Your task to perform on an android device: Search for "dell xps" on newegg.com, select the first entry, and add it to the cart. Image 0: 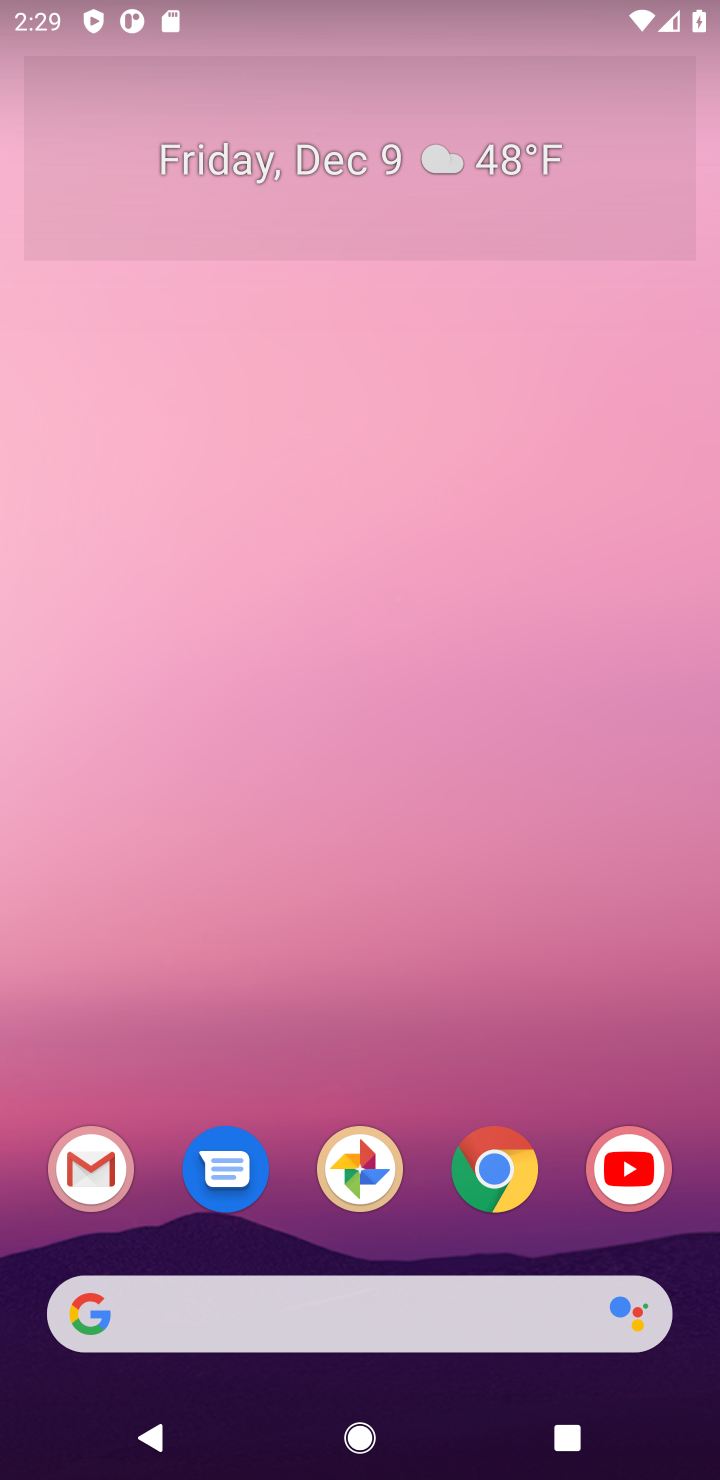
Step 0: click (503, 1176)
Your task to perform on an android device: Search for "dell xps" on newegg.com, select the first entry, and add it to the cart. Image 1: 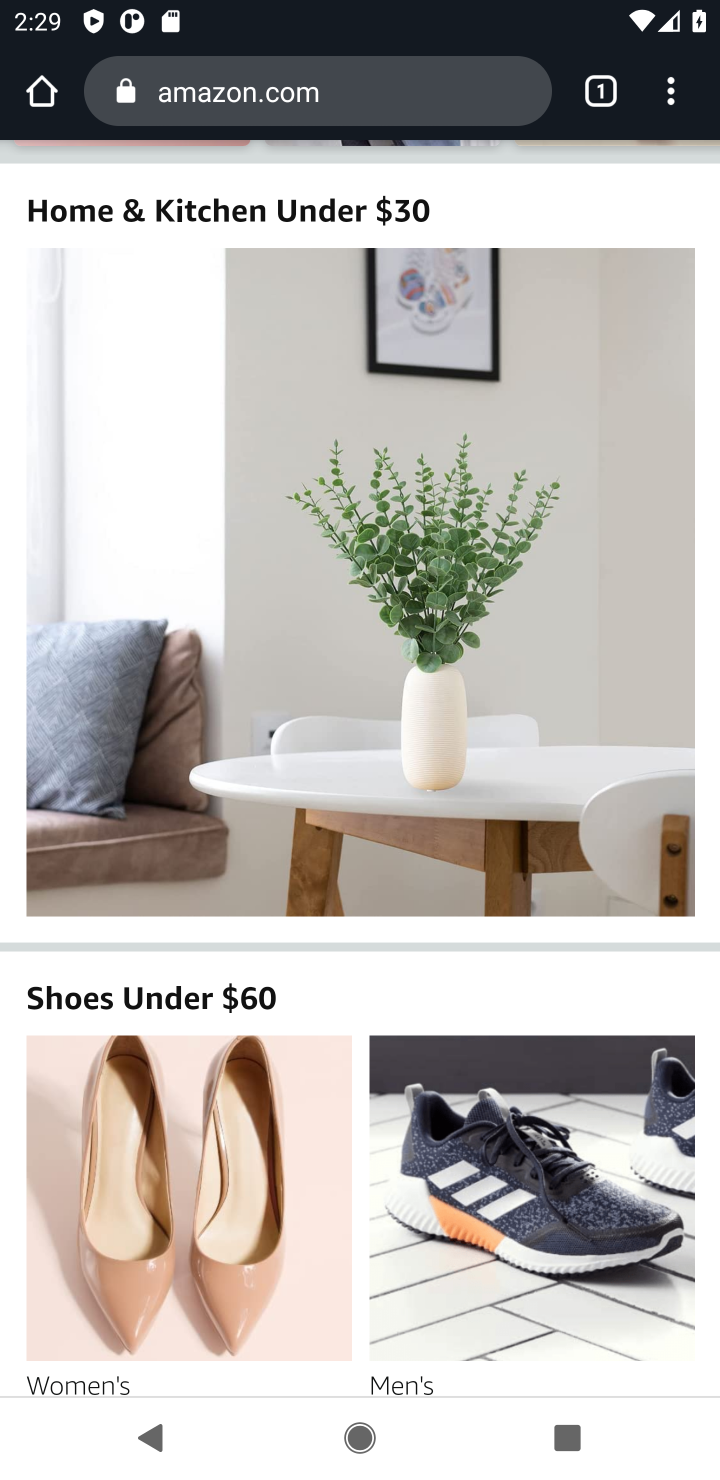
Step 1: click (300, 104)
Your task to perform on an android device: Search for "dell xps" on newegg.com, select the first entry, and add it to the cart. Image 2: 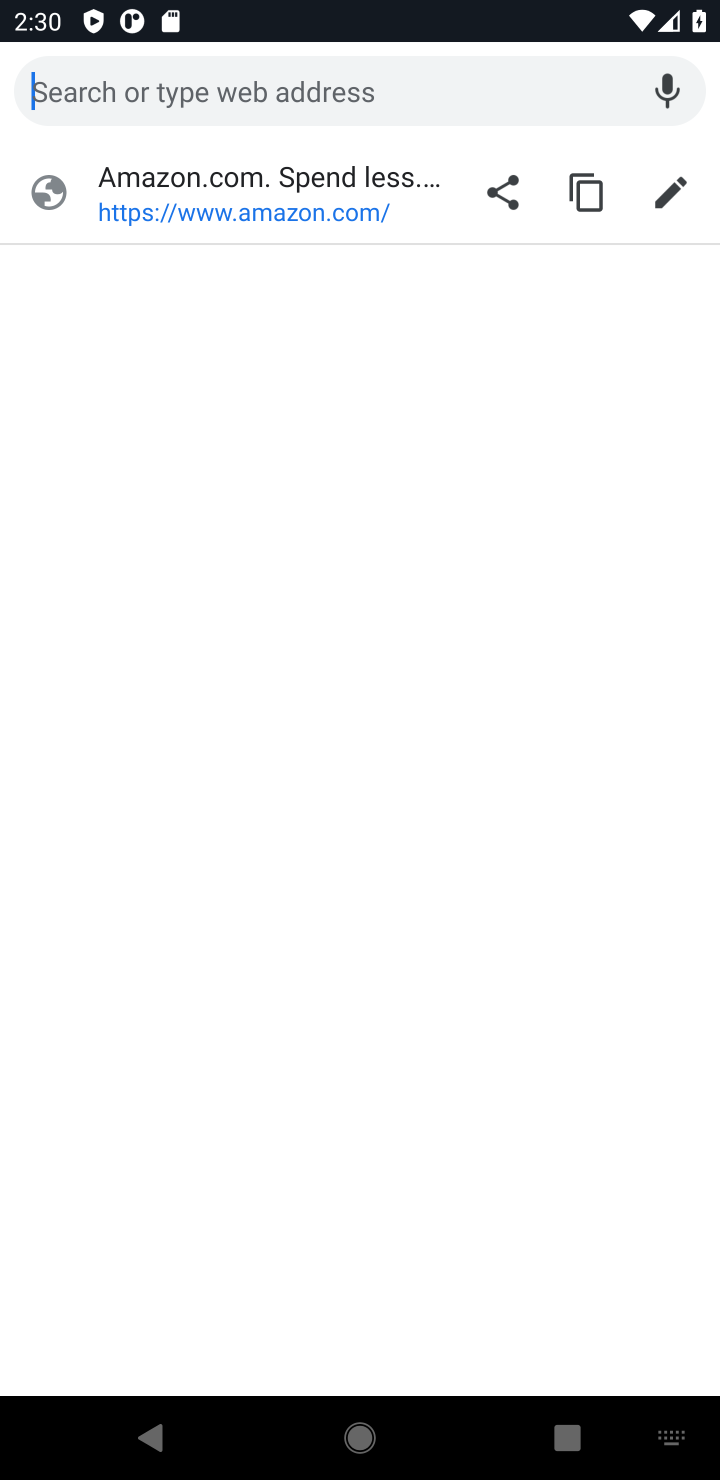
Step 2: press enter
Your task to perform on an android device: Search for "dell xps" on newegg.com, select the first entry, and add it to the cart. Image 3: 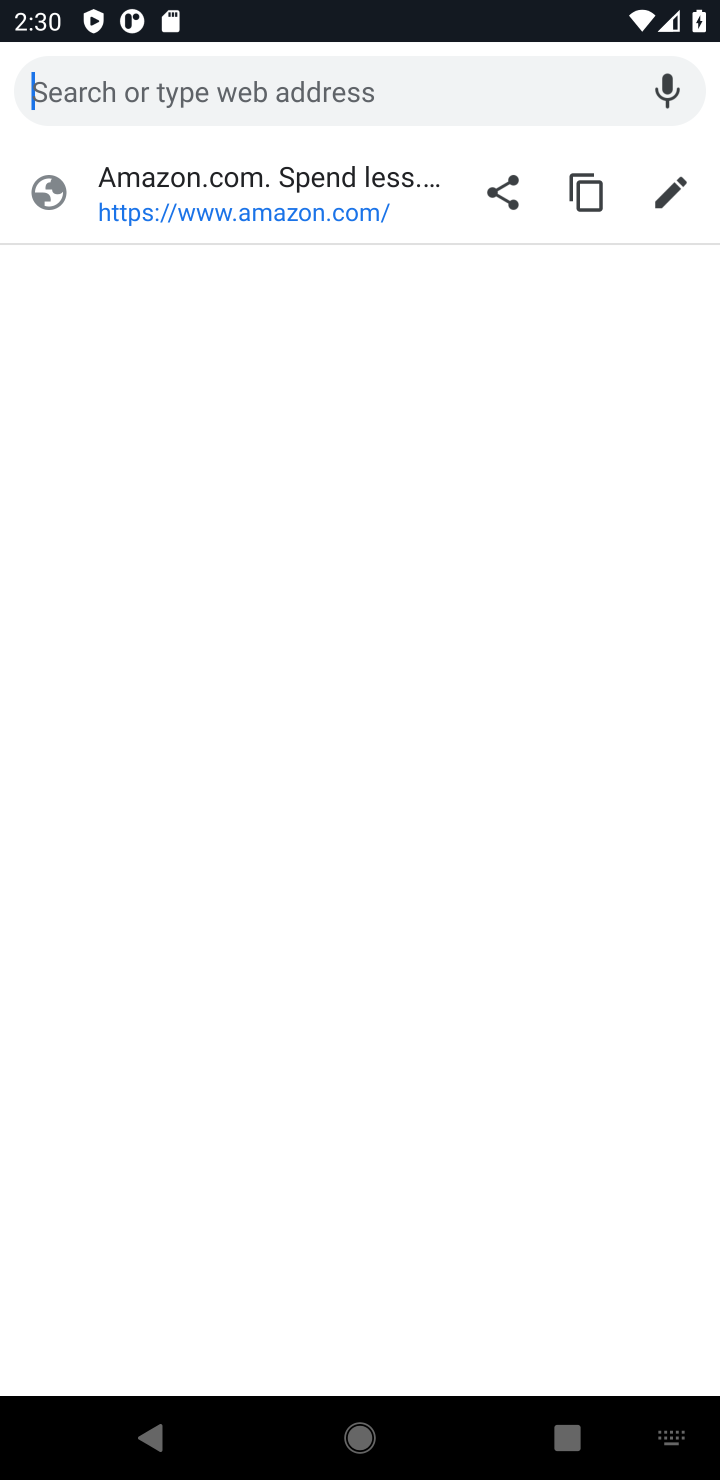
Step 3: type "newegg.com"
Your task to perform on an android device: Search for "dell xps" on newegg.com, select the first entry, and add it to the cart. Image 4: 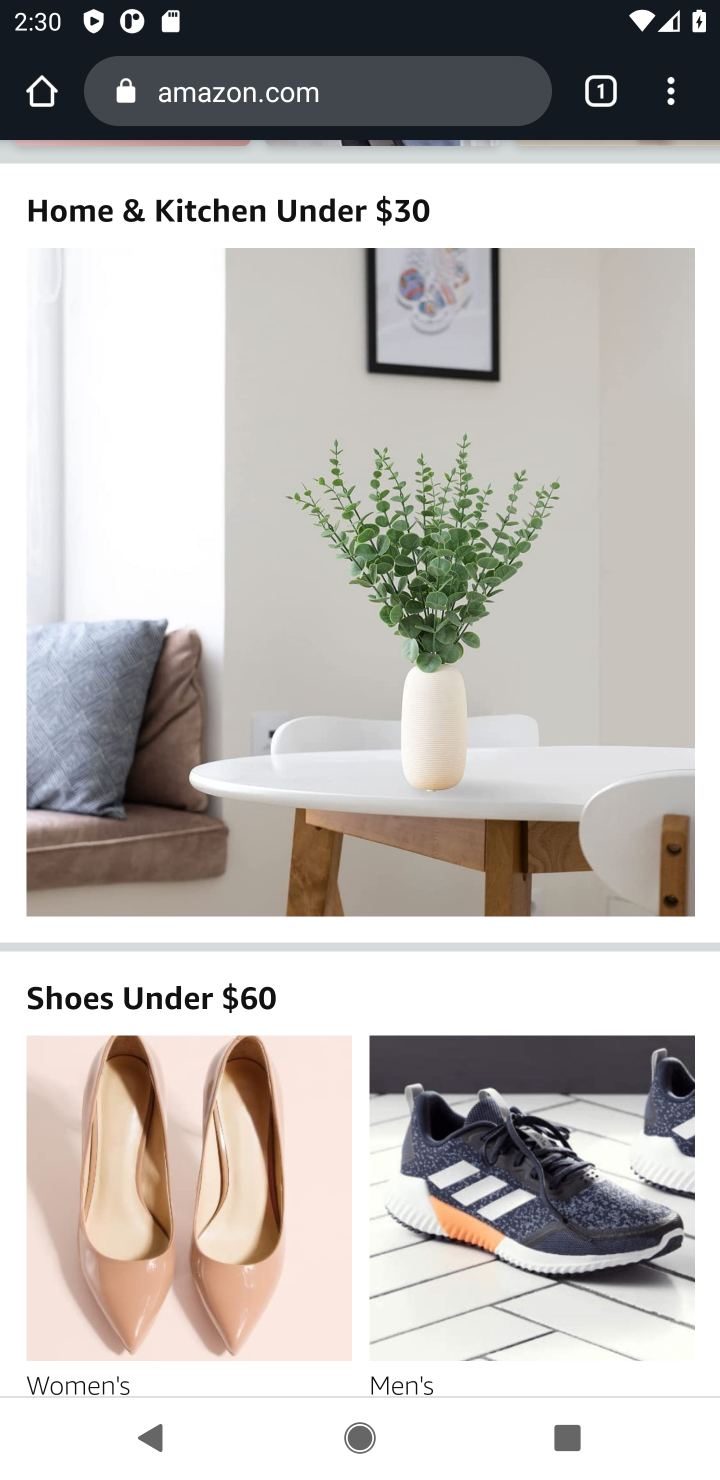
Step 4: click (421, 85)
Your task to perform on an android device: Search for "dell xps" on newegg.com, select the first entry, and add it to the cart. Image 5: 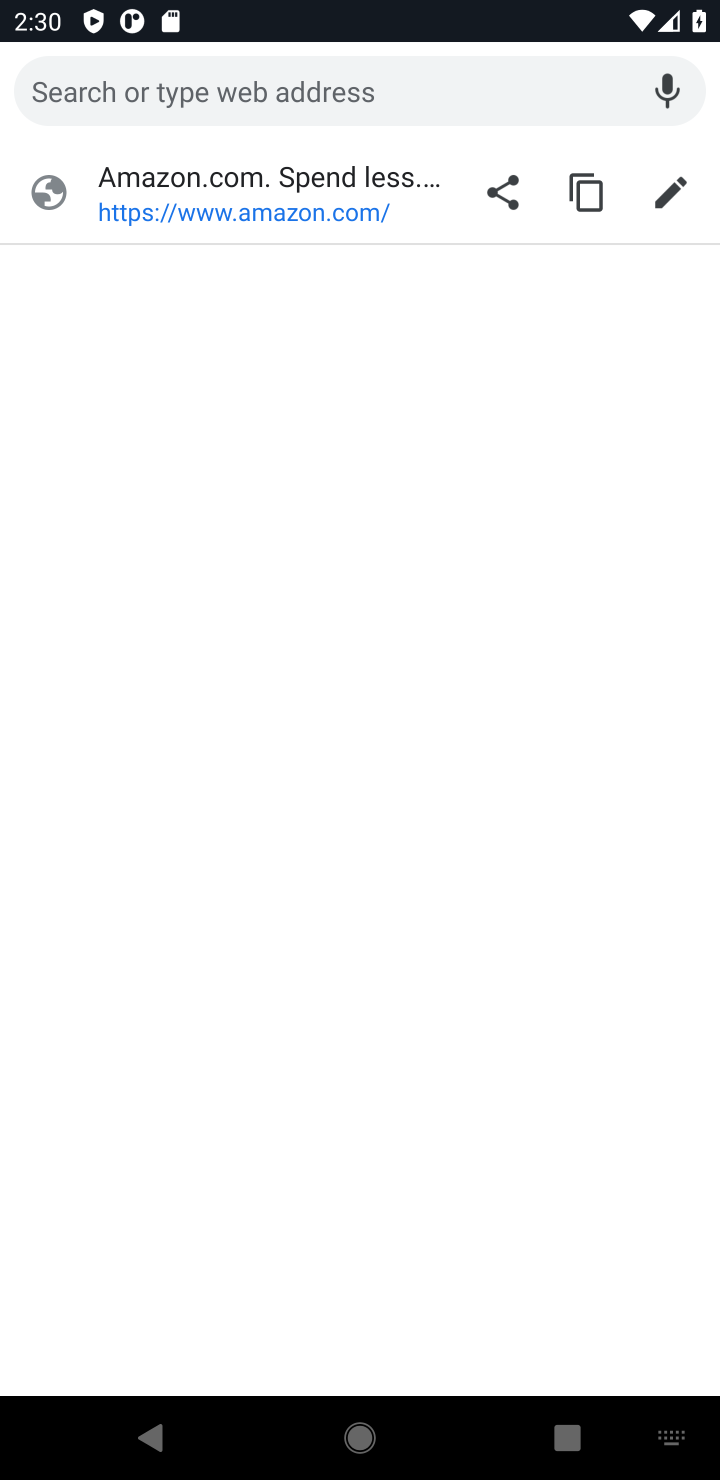
Step 5: press enter
Your task to perform on an android device: Search for "dell xps" on newegg.com, select the first entry, and add it to the cart. Image 6: 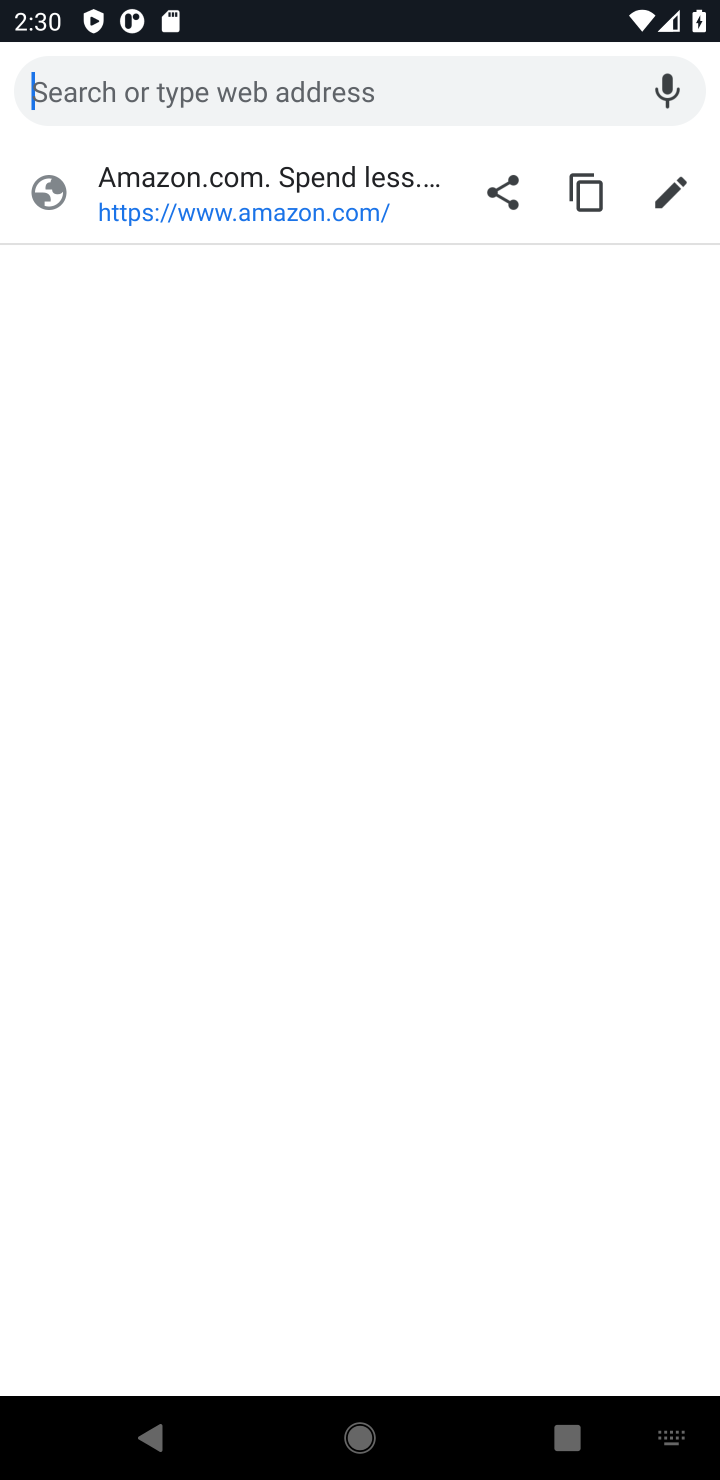
Step 6: type "newegg.com"
Your task to perform on an android device: Search for "dell xps" on newegg.com, select the first entry, and add it to the cart. Image 7: 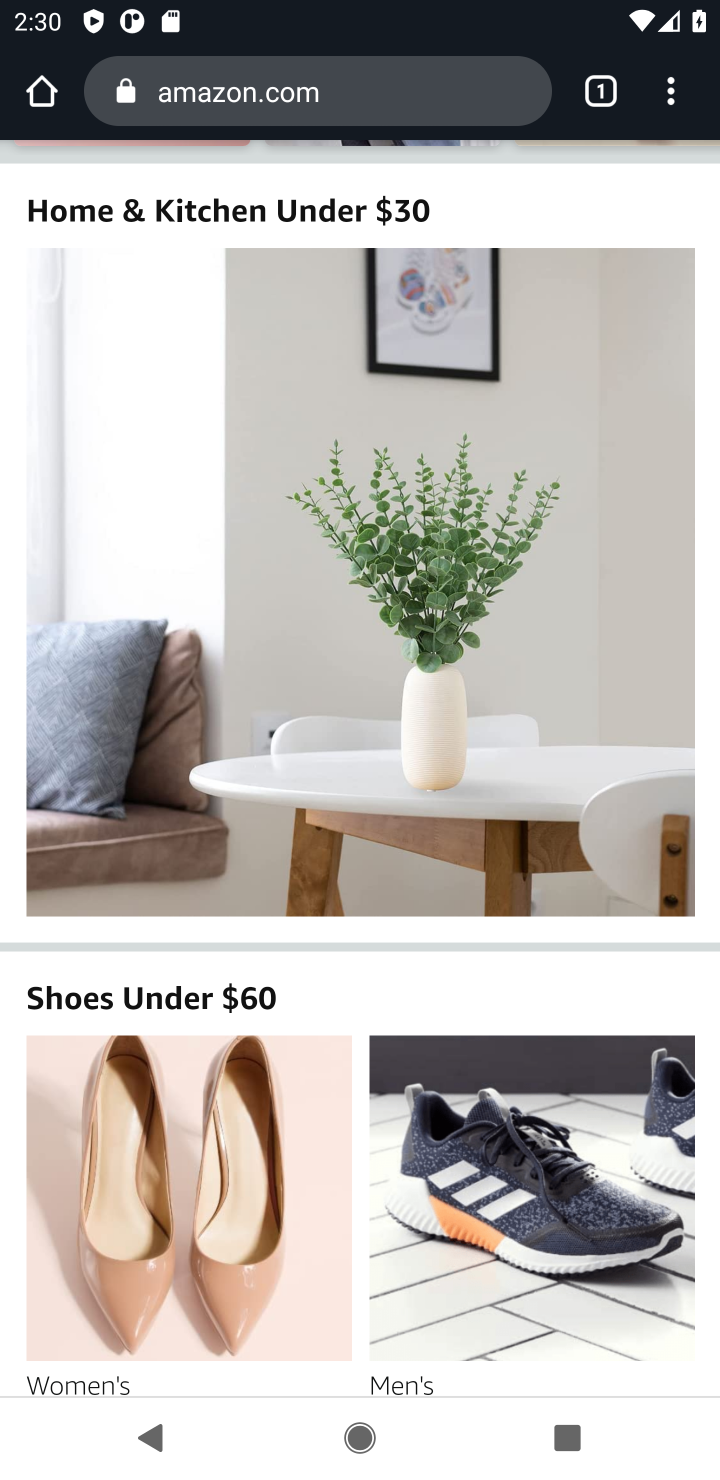
Step 7: click (44, 101)
Your task to perform on an android device: Search for "dell xps" on newegg.com, select the first entry, and add it to the cart. Image 8: 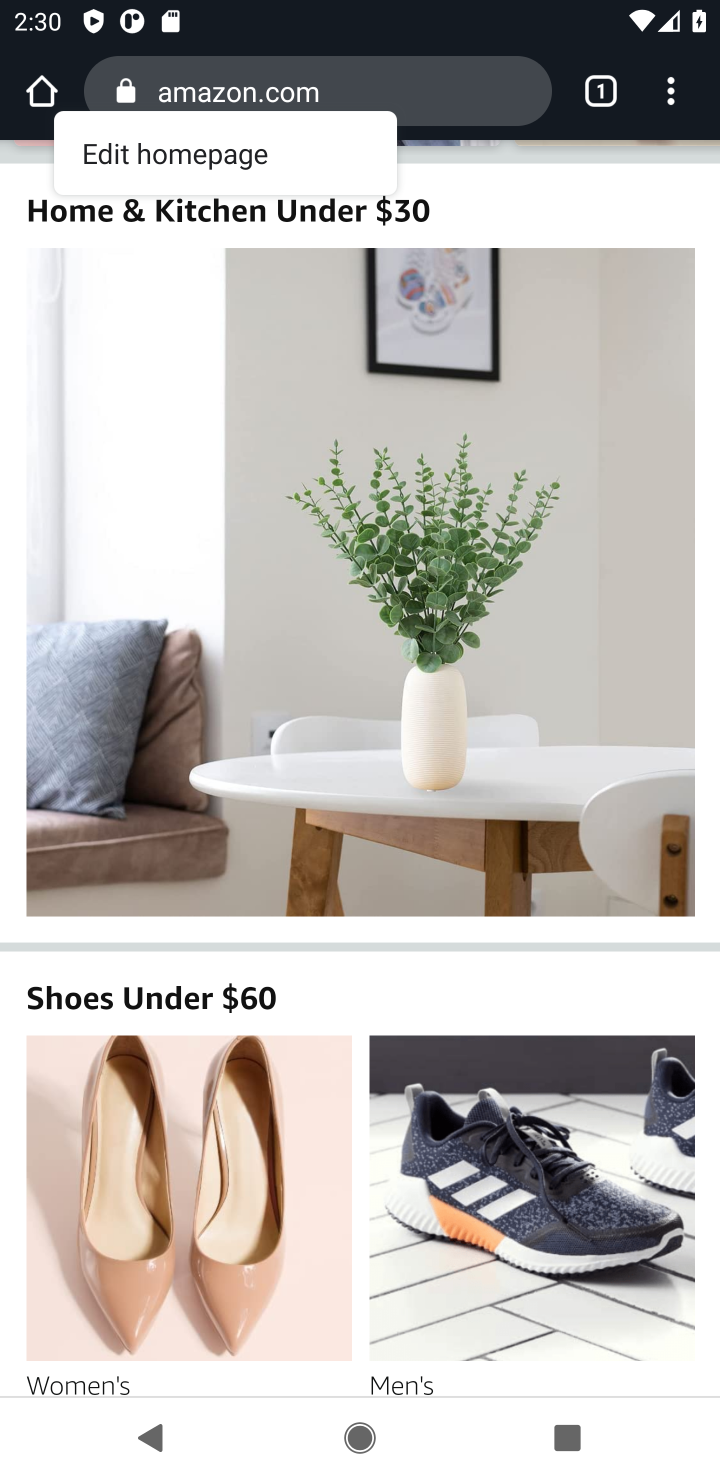
Step 8: click (46, 93)
Your task to perform on an android device: Search for "dell xps" on newegg.com, select the first entry, and add it to the cart. Image 9: 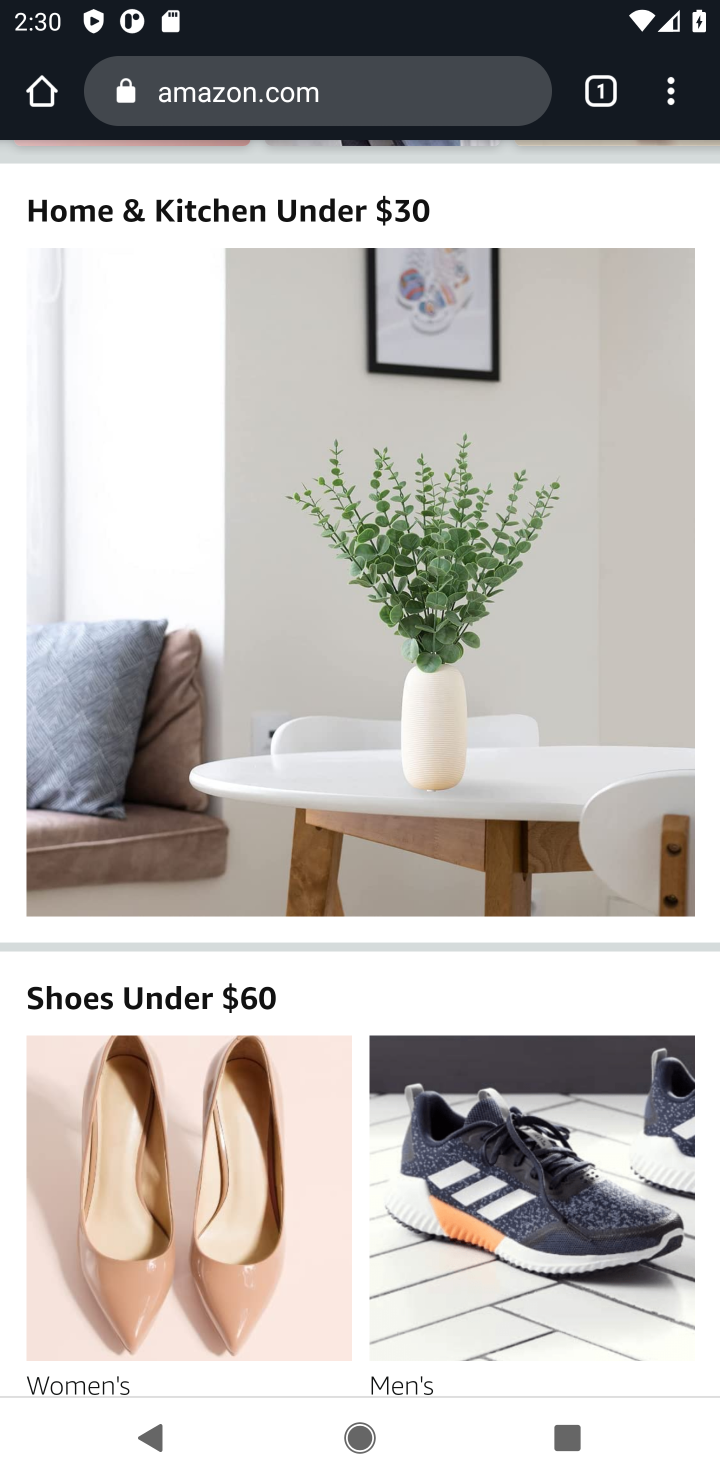
Step 9: click (46, 93)
Your task to perform on an android device: Search for "dell xps" on newegg.com, select the first entry, and add it to the cart. Image 10: 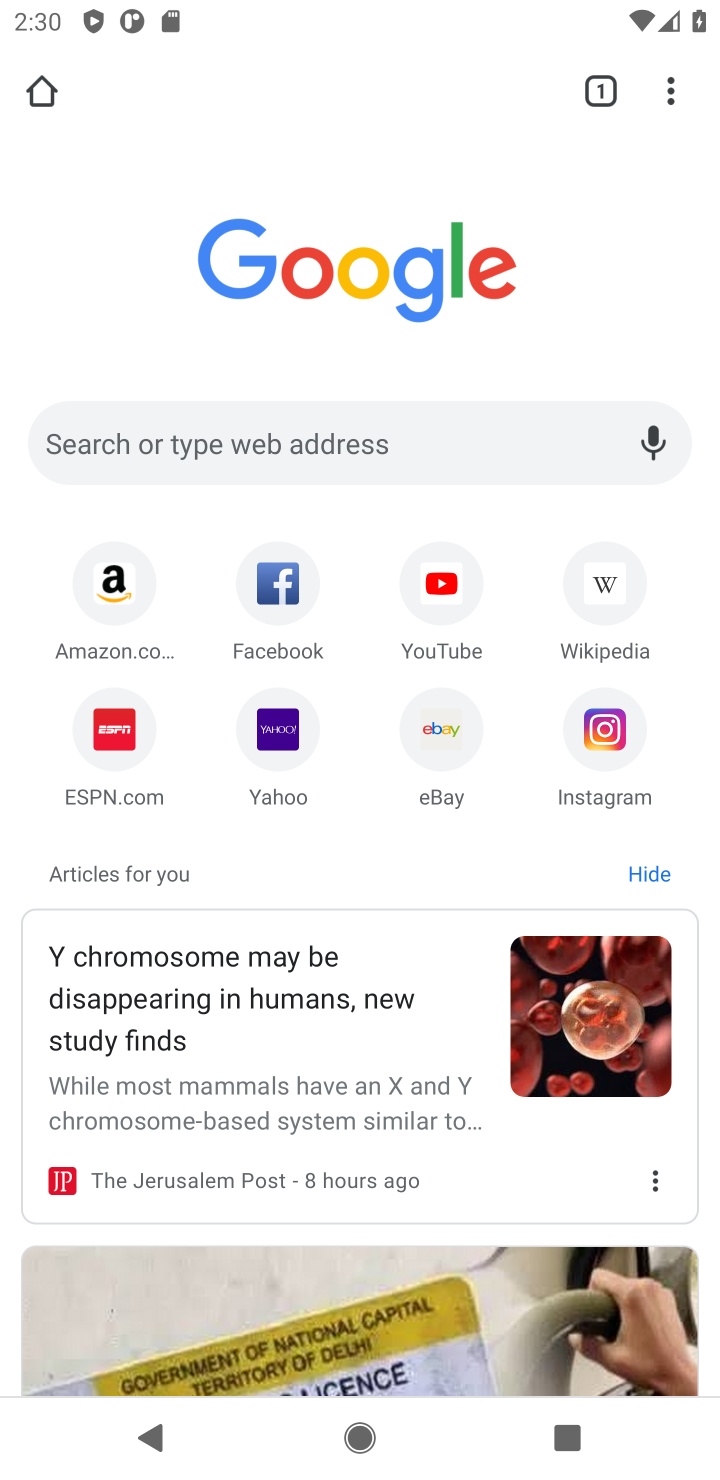
Step 10: click (411, 427)
Your task to perform on an android device: Search for "dell xps" on newegg.com, select the first entry, and add it to the cart. Image 11: 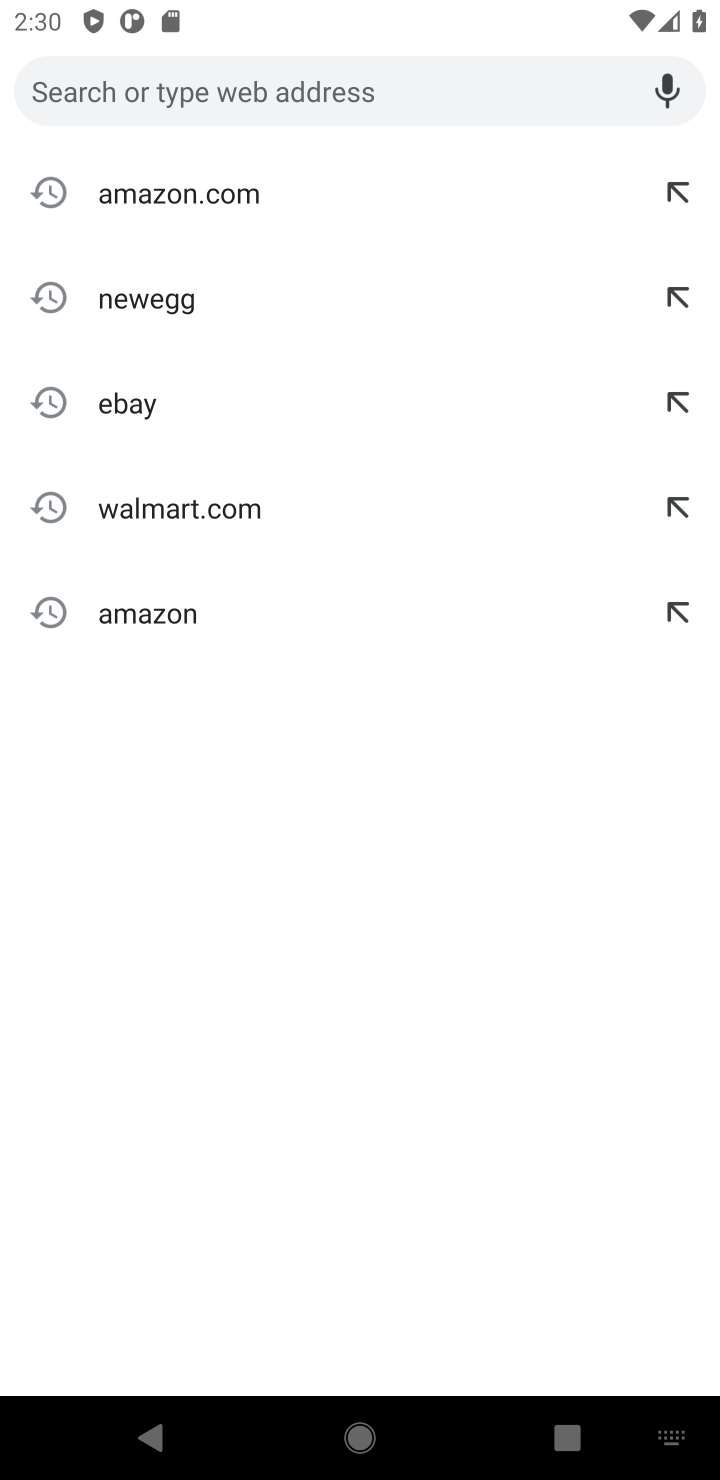
Step 11: click (139, 295)
Your task to perform on an android device: Search for "dell xps" on newegg.com, select the first entry, and add it to the cart. Image 12: 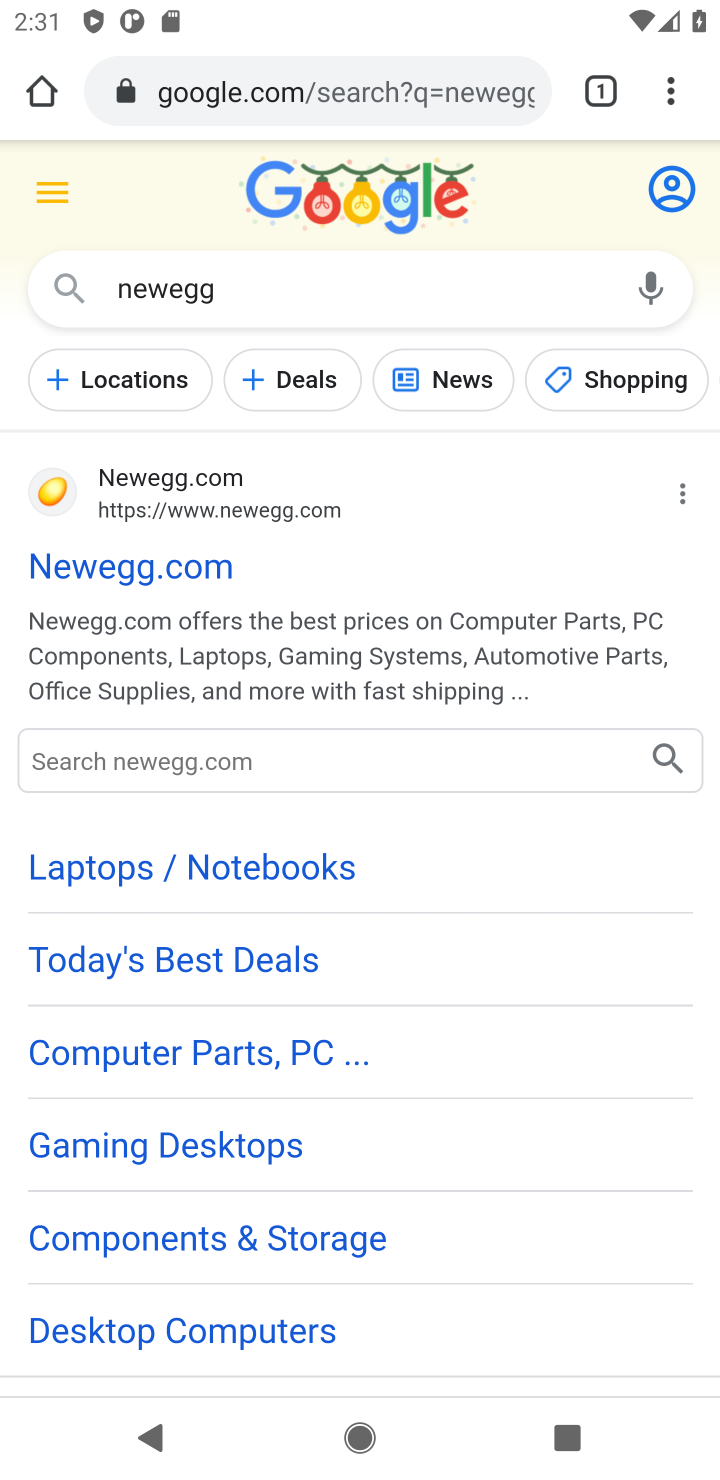
Step 12: click (179, 513)
Your task to perform on an android device: Search for "dell xps" on newegg.com, select the first entry, and add it to the cart. Image 13: 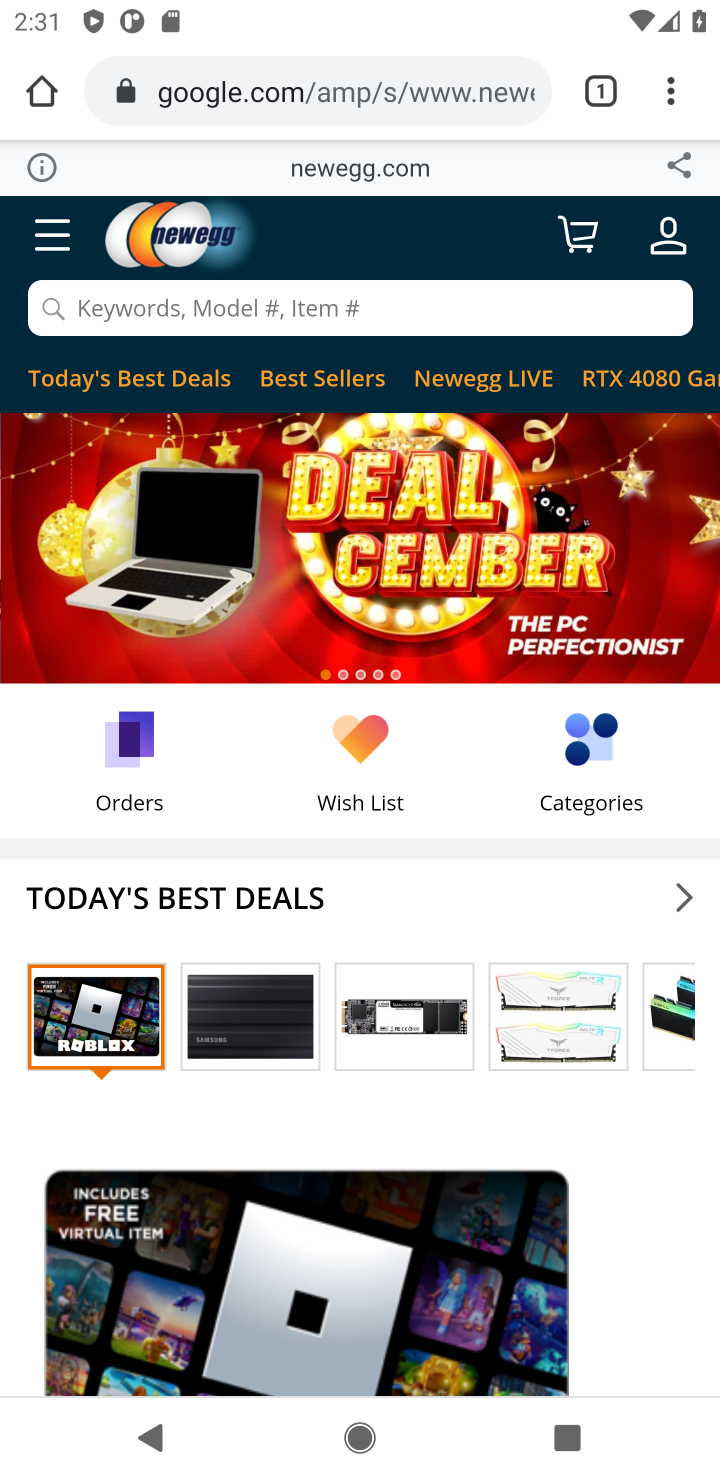
Step 13: click (571, 301)
Your task to perform on an android device: Search for "dell xps" on newegg.com, select the first entry, and add it to the cart. Image 14: 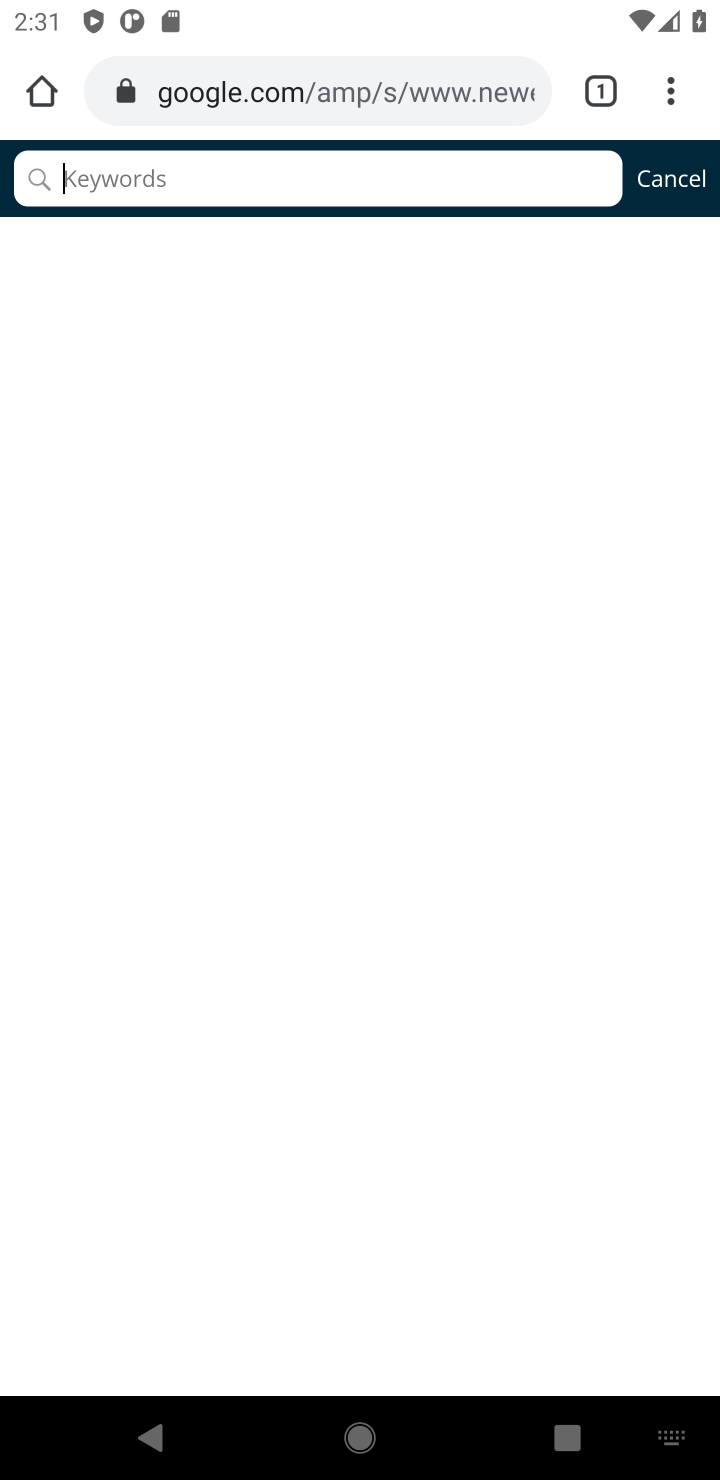
Step 14: press enter
Your task to perform on an android device: Search for "dell xps" on newegg.com, select the first entry, and add it to the cart. Image 15: 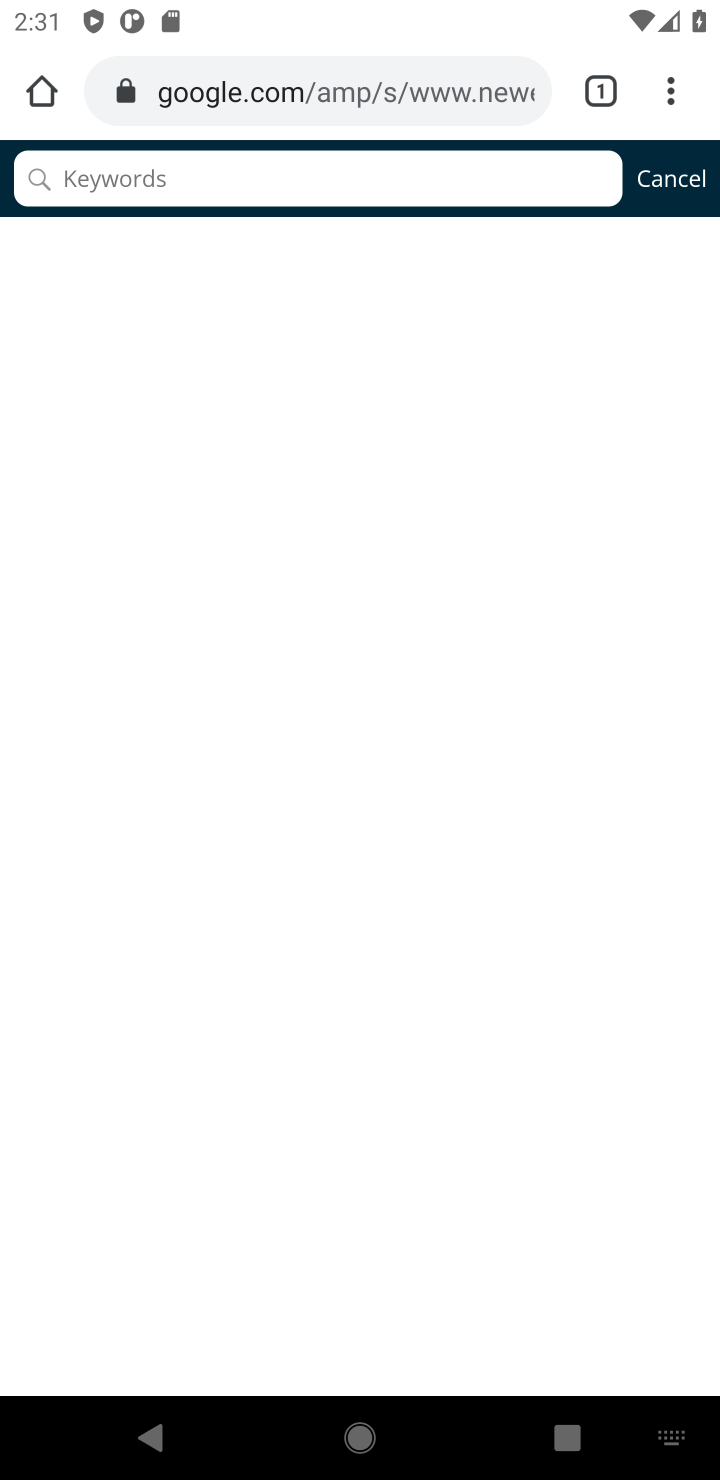
Step 15: type "dell xps"
Your task to perform on an android device: Search for "dell xps" on newegg.com, select the first entry, and add it to the cart. Image 16: 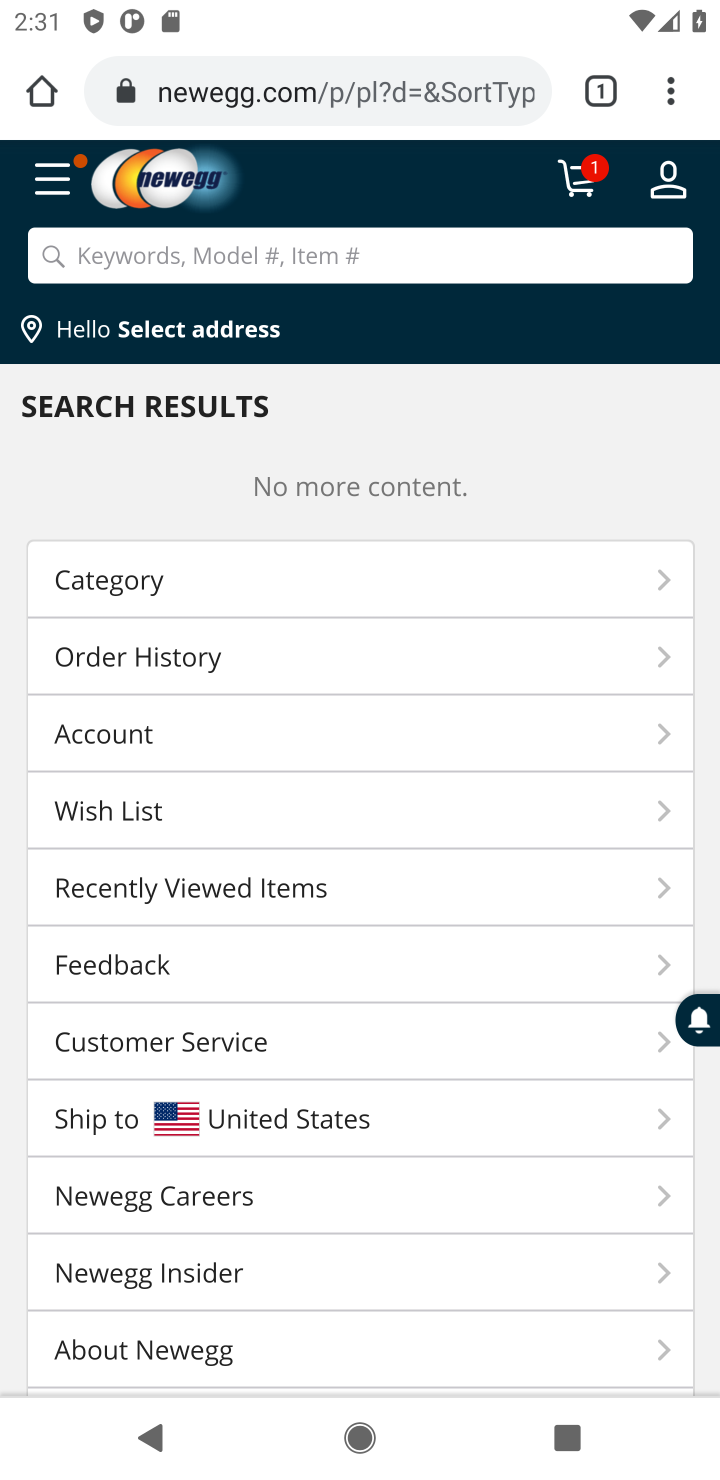
Step 16: click (470, 256)
Your task to perform on an android device: Search for "dell xps" on newegg.com, select the first entry, and add it to the cart. Image 17: 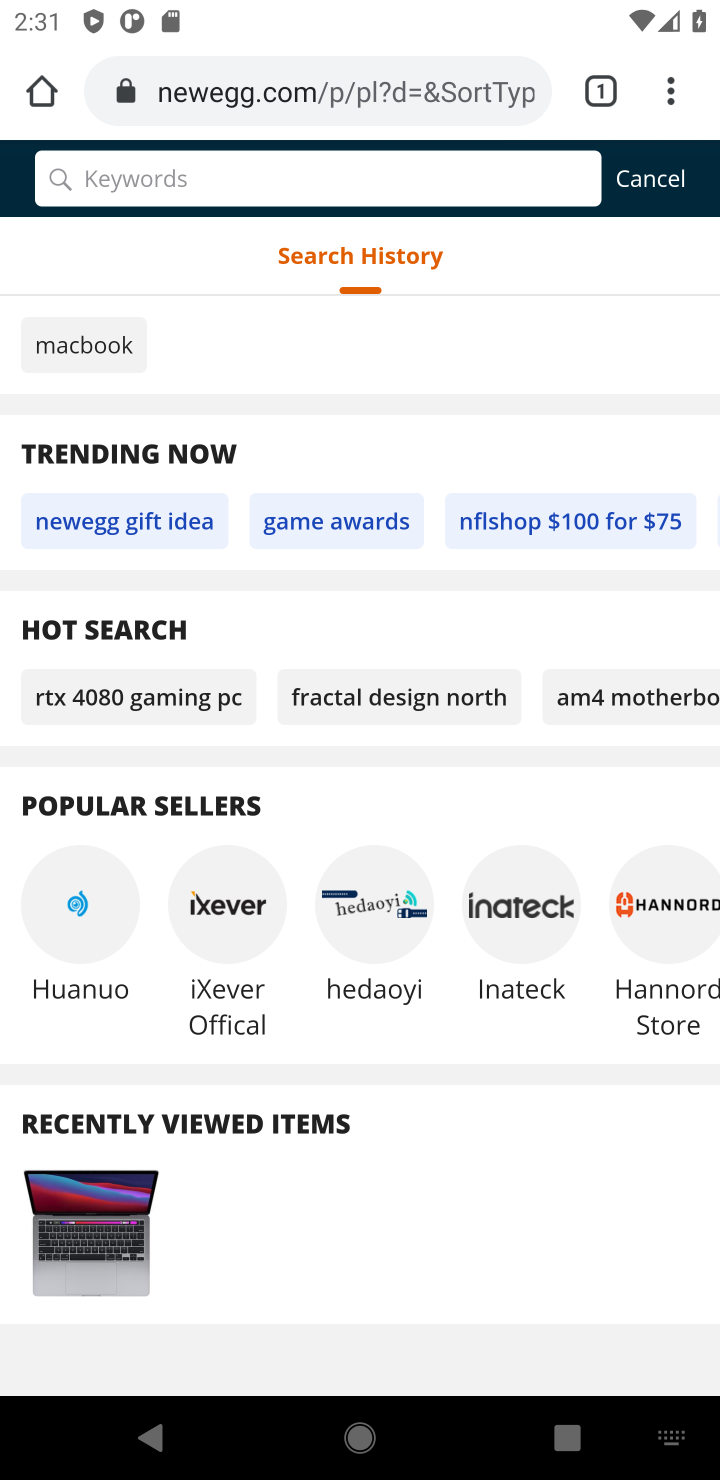
Step 17: press enter
Your task to perform on an android device: Search for "dell xps" on newegg.com, select the first entry, and add it to the cart. Image 18: 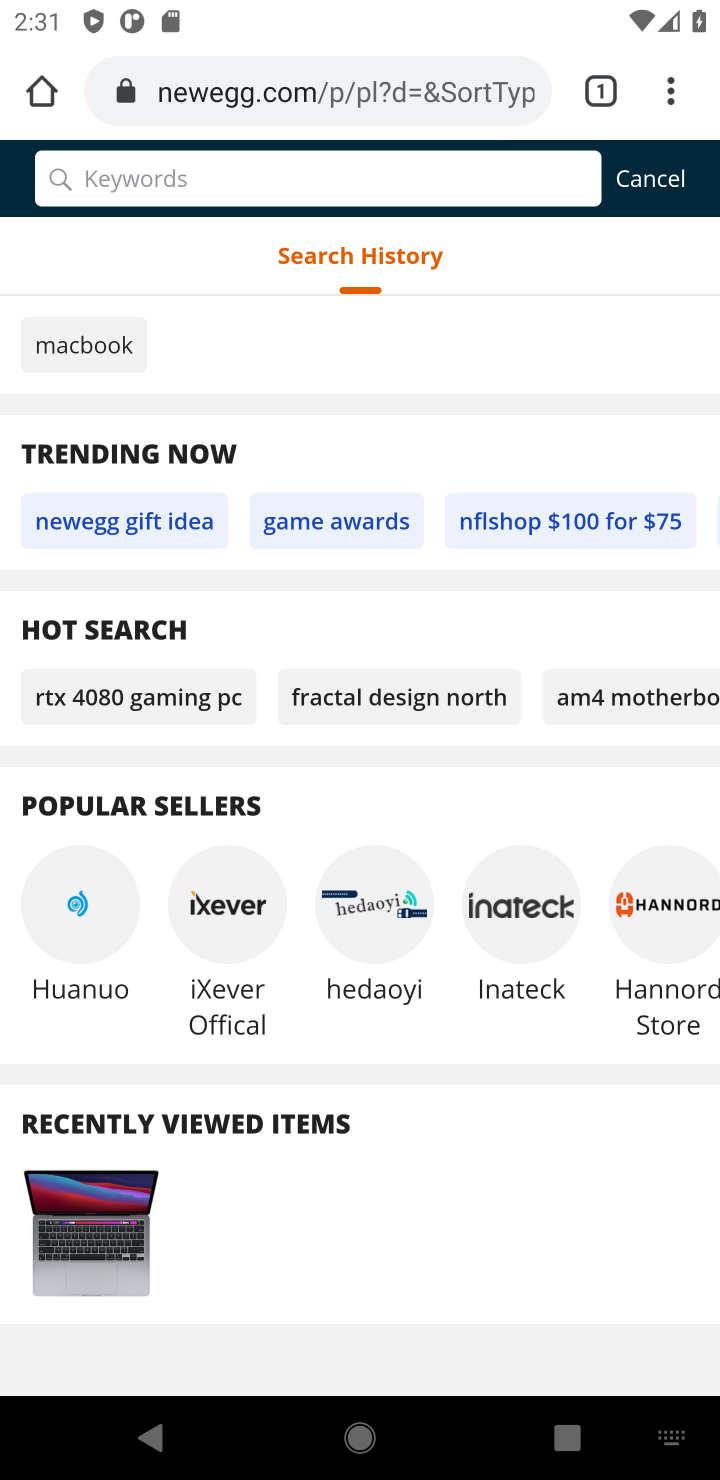
Step 18: type "dell xps"
Your task to perform on an android device: Search for "dell xps" on newegg.com, select the first entry, and add it to the cart. Image 19: 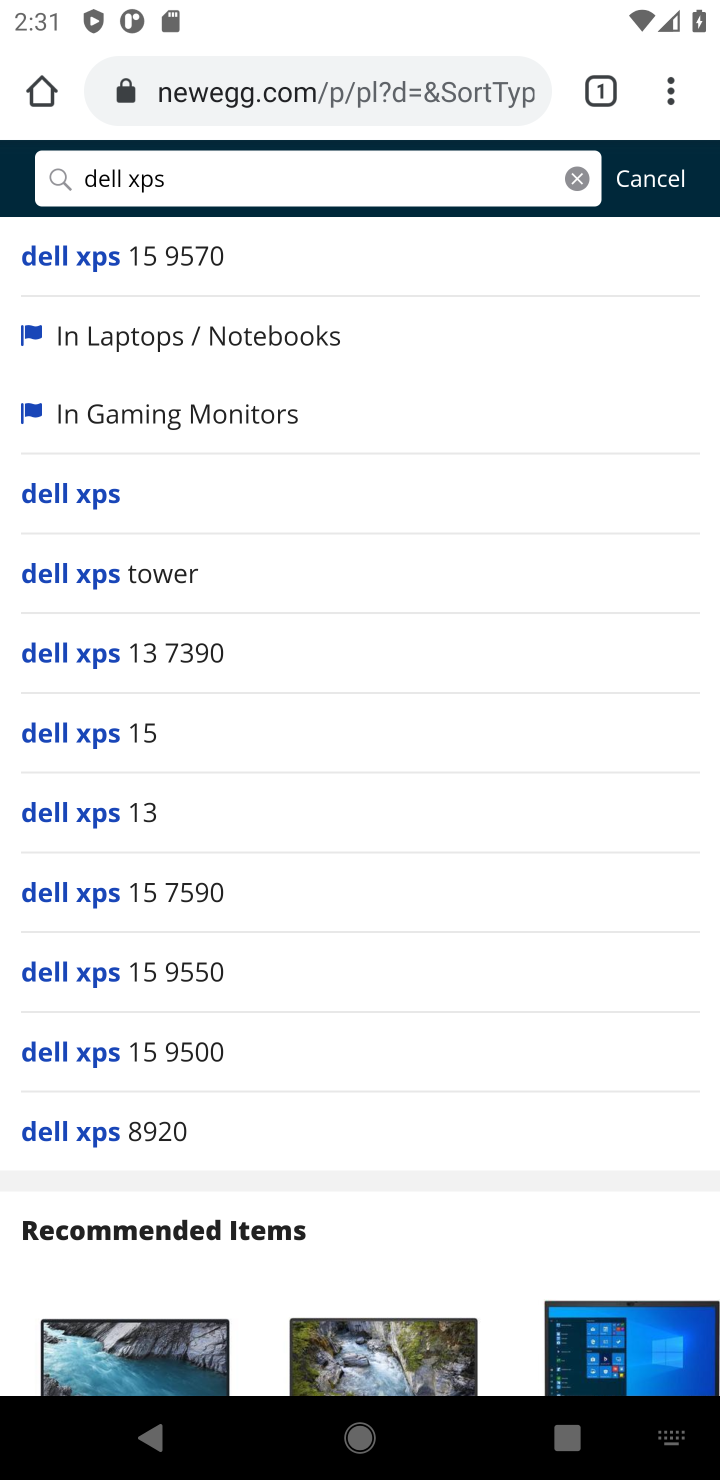
Step 19: click (99, 497)
Your task to perform on an android device: Search for "dell xps" on newegg.com, select the first entry, and add it to the cart. Image 20: 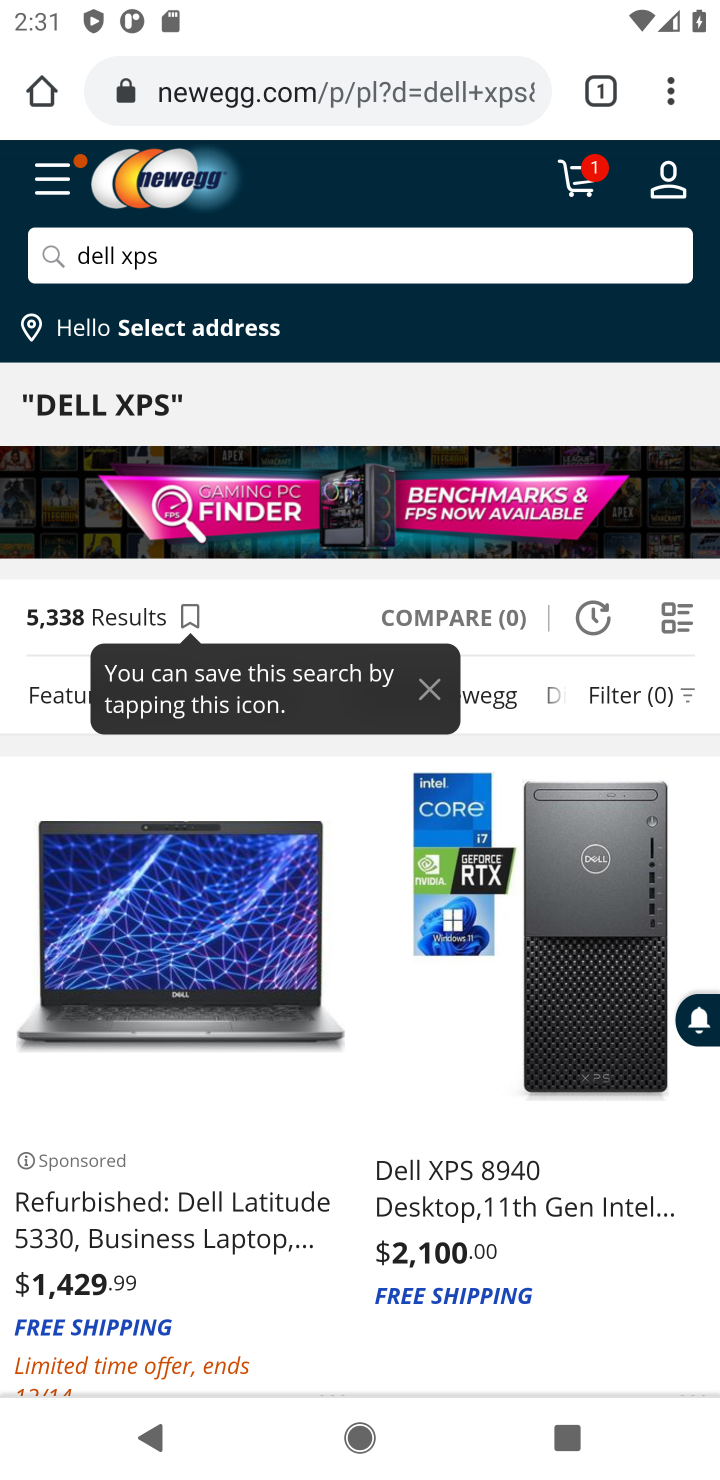
Step 20: click (577, 965)
Your task to perform on an android device: Search for "dell xps" on newegg.com, select the first entry, and add it to the cart. Image 21: 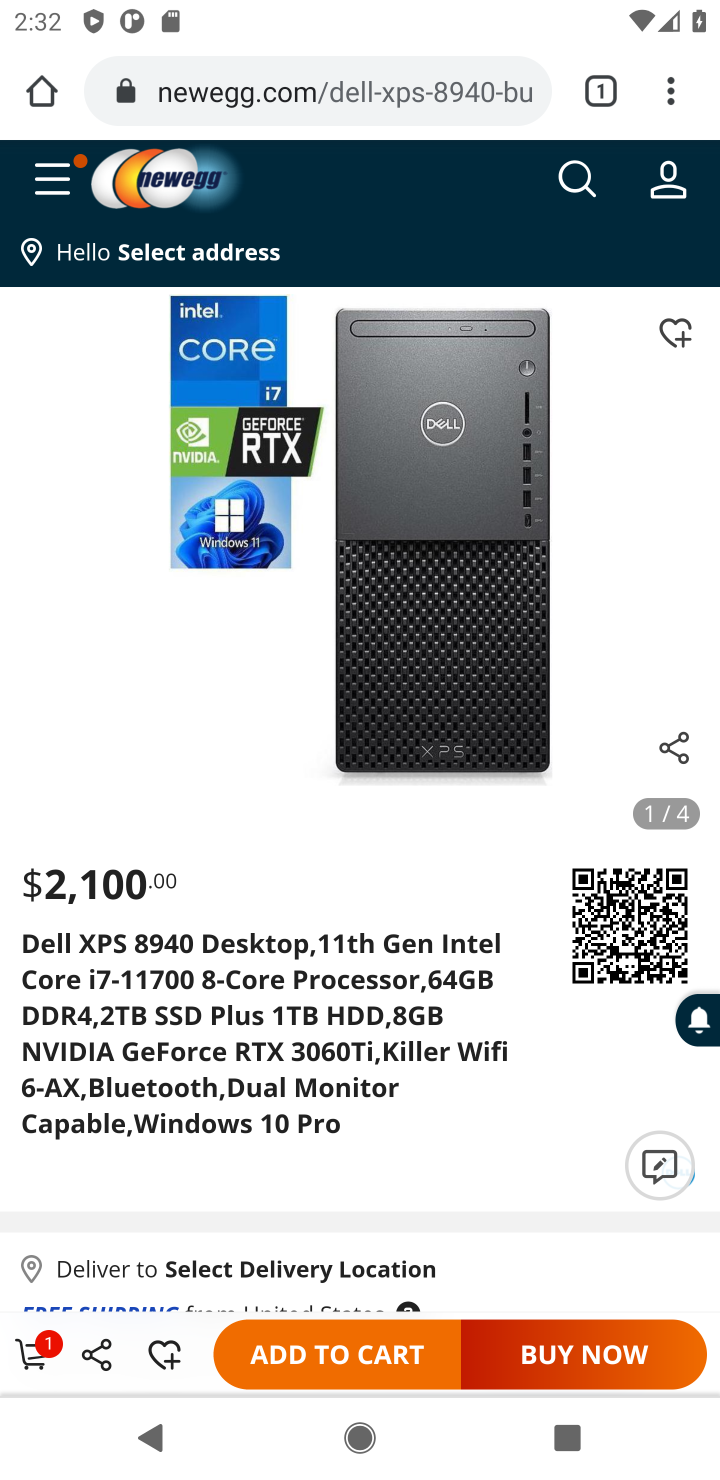
Step 21: click (342, 1370)
Your task to perform on an android device: Search for "dell xps" on newegg.com, select the first entry, and add it to the cart. Image 22: 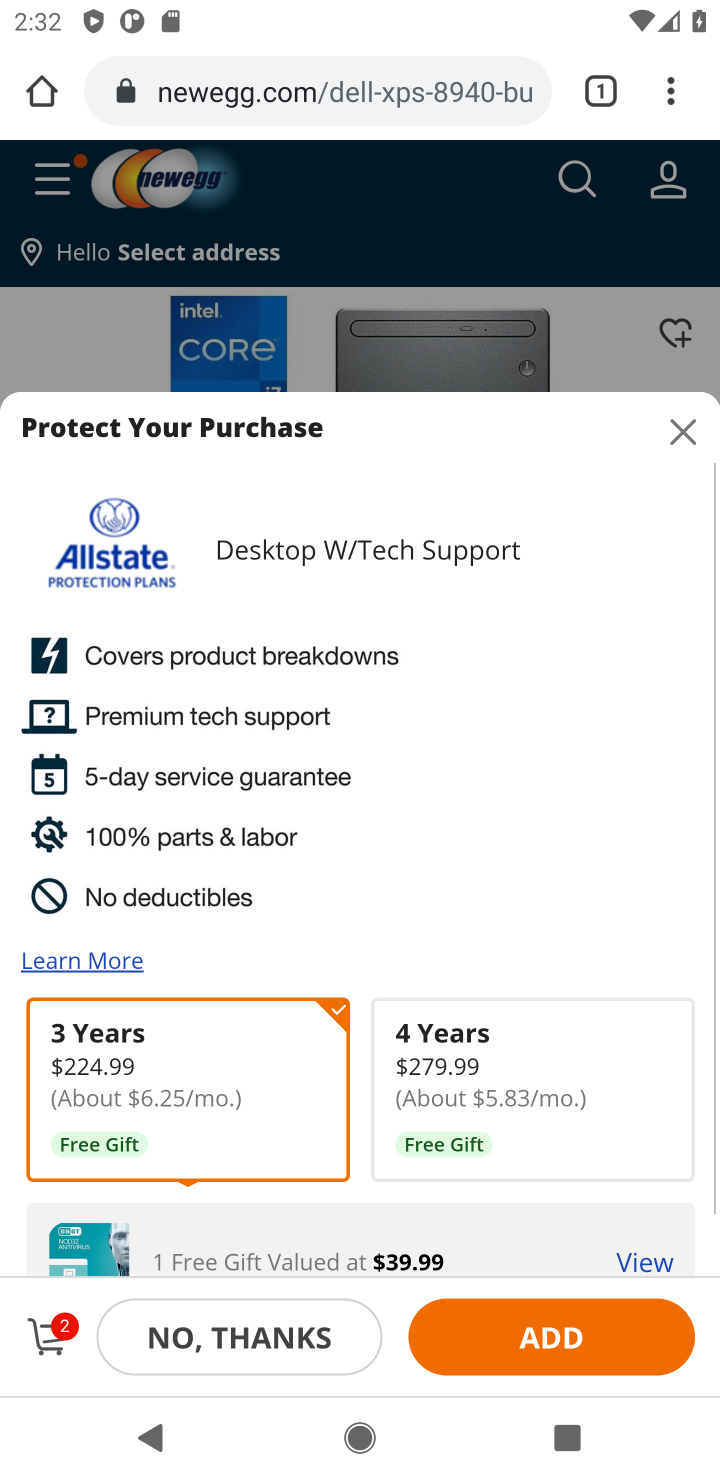
Step 22: click (63, 1328)
Your task to perform on an android device: Search for "dell xps" on newegg.com, select the first entry, and add it to the cart. Image 23: 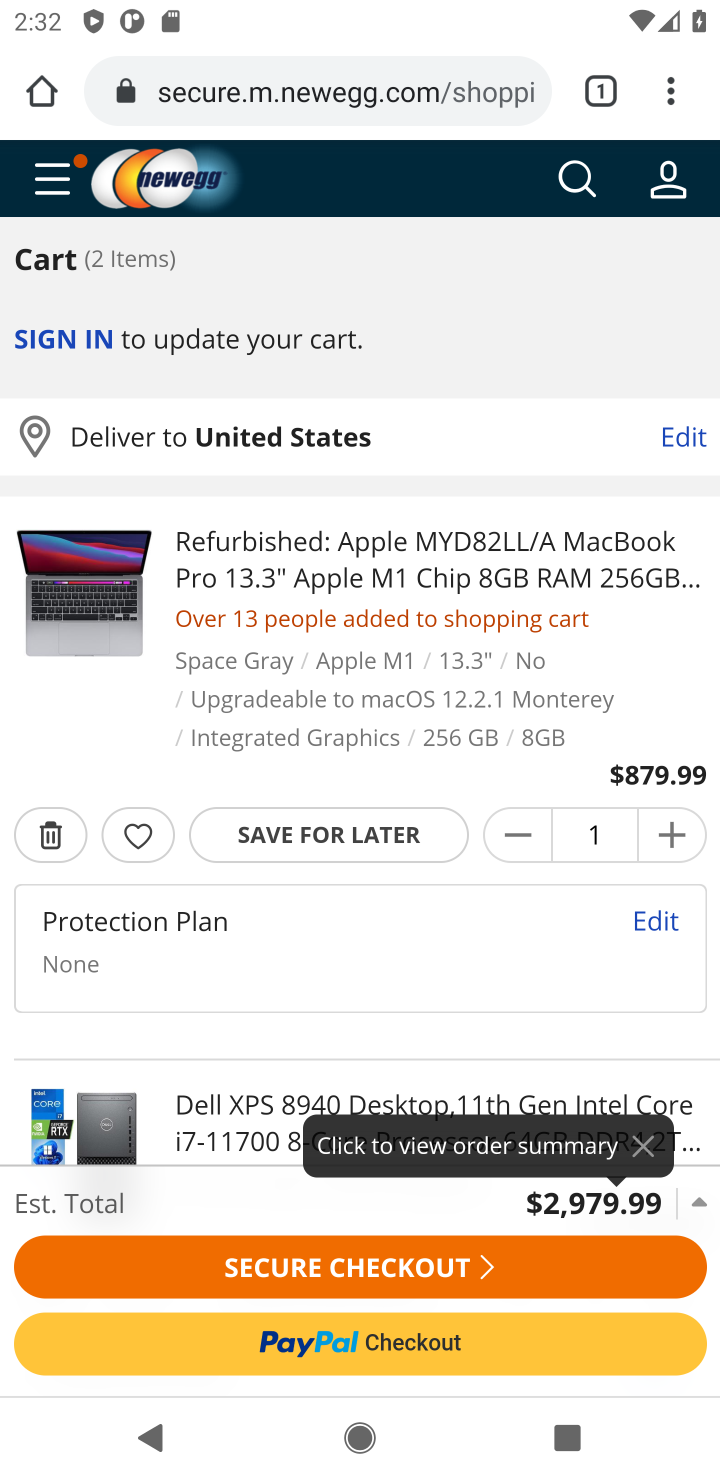
Step 23: task complete